Your task to perform on an android device: toggle improve location accuracy Image 0: 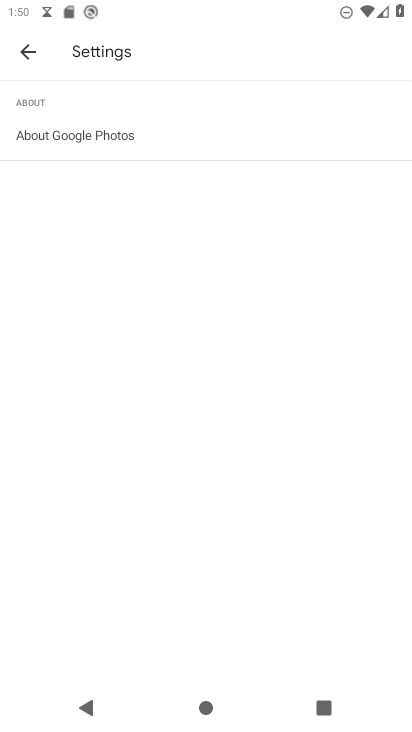
Step 0: press home button
Your task to perform on an android device: toggle improve location accuracy Image 1: 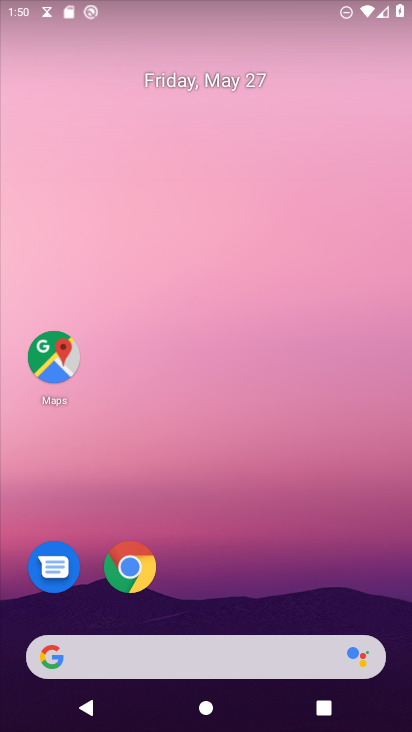
Step 1: drag from (237, 609) to (192, 202)
Your task to perform on an android device: toggle improve location accuracy Image 2: 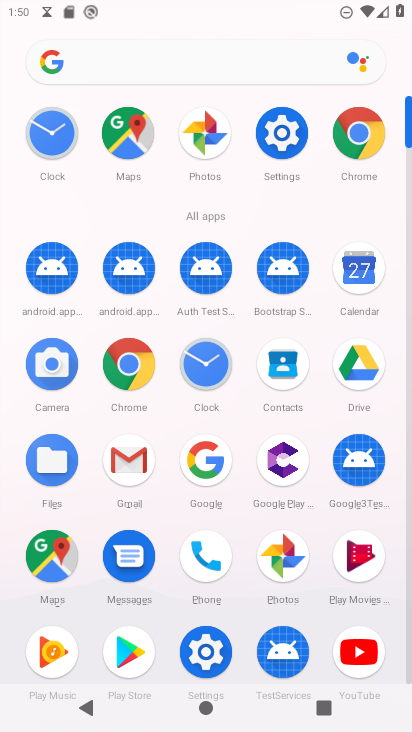
Step 2: click (280, 115)
Your task to perform on an android device: toggle improve location accuracy Image 3: 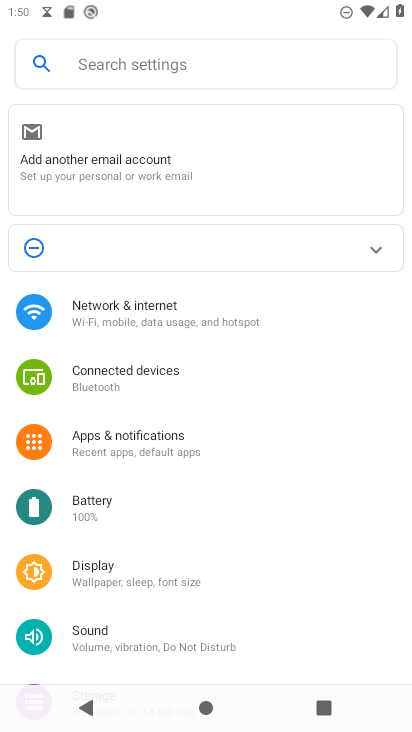
Step 3: drag from (187, 669) to (152, 208)
Your task to perform on an android device: toggle improve location accuracy Image 4: 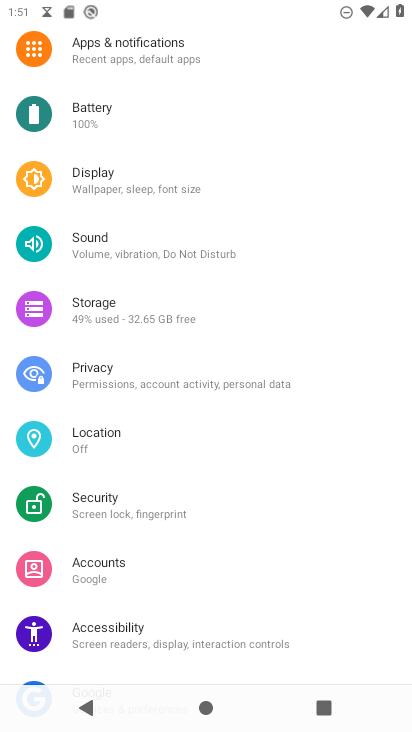
Step 4: click (149, 444)
Your task to perform on an android device: toggle improve location accuracy Image 5: 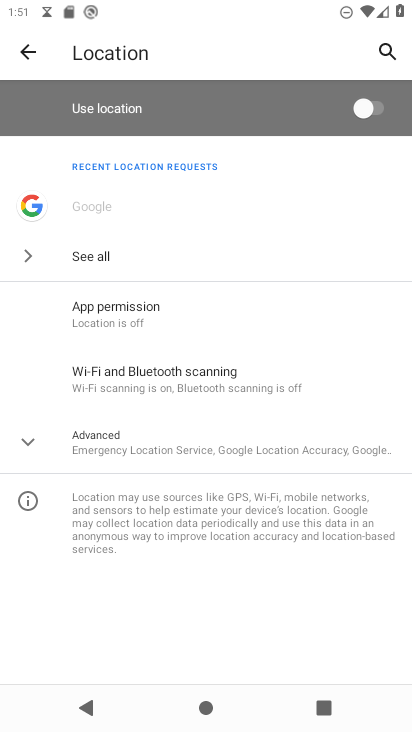
Step 5: click (262, 463)
Your task to perform on an android device: toggle improve location accuracy Image 6: 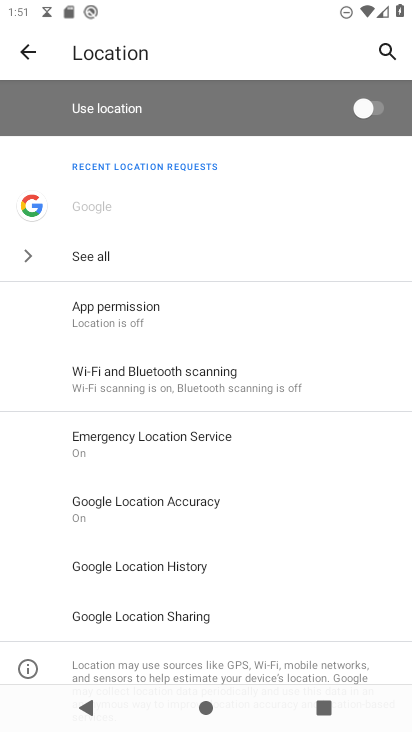
Step 6: click (259, 515)
Your task to perform on an android device: toggle improve location accuracy Image 7: 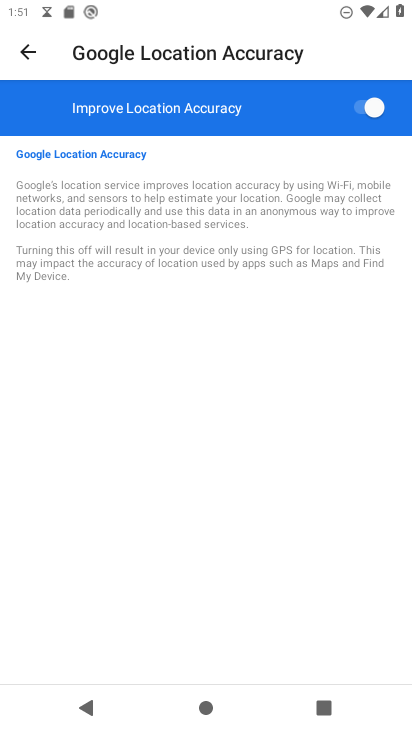
Step 7: task complete